Your task to perform on an android device: Open location settings Image 0: 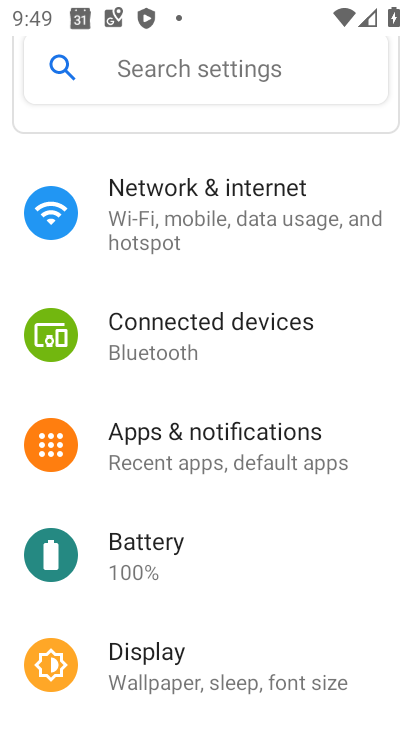
Step 0: drag from (264, 530) to (193, 309)
Your task to perform on an android device: Open location settings Image 1: 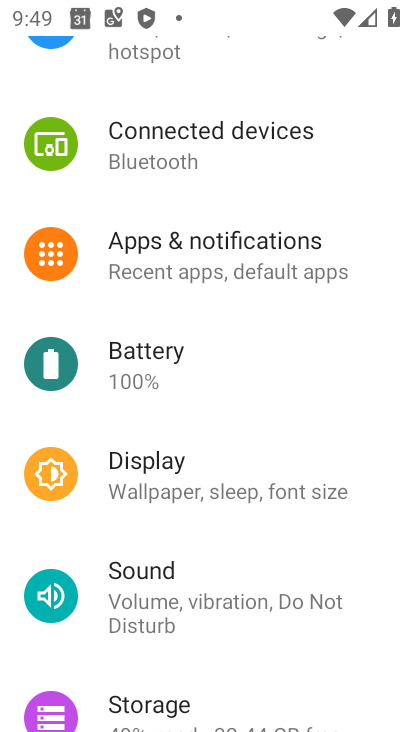
Step 1: drag from (195, 631) to (141, 301)
Your task to perform on an android device: Open location settings Image 2: 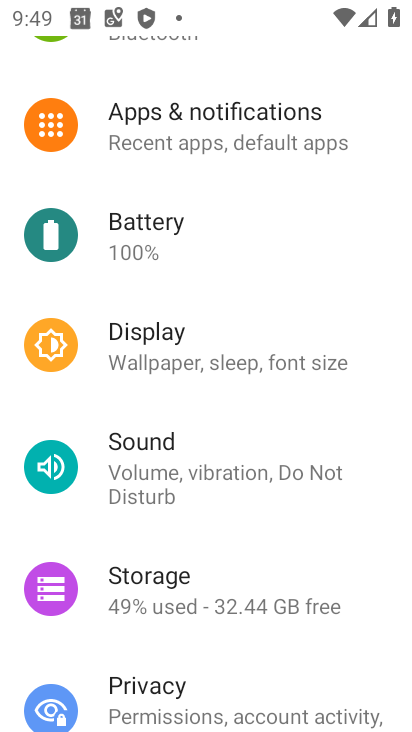
Step 2: drag from (225, 540) to (225, 234)
Your task to perform on an android device: Open location settings Image 3: 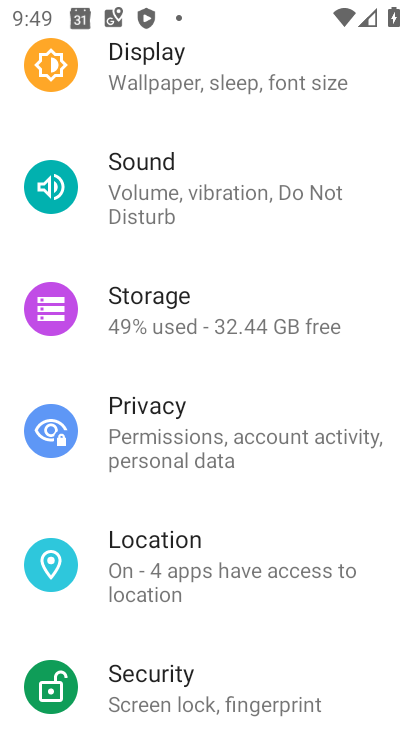
Step 3: click (153, 544)
Your task to perform on an android device: Open location settings Image 4: 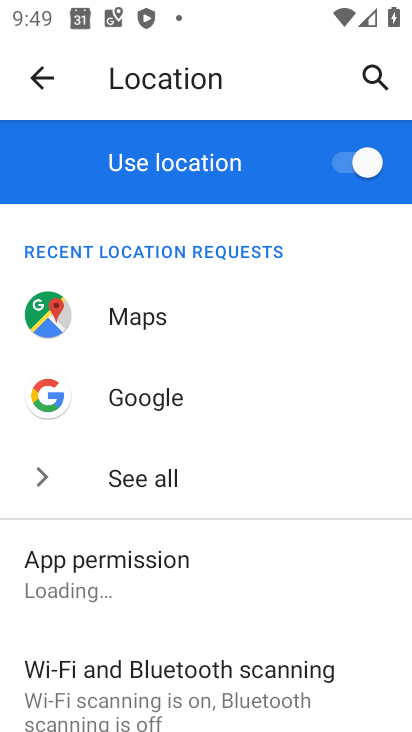
Step 4: task complete